Your task to perform on an android device: toggle airplane mode Image 0: 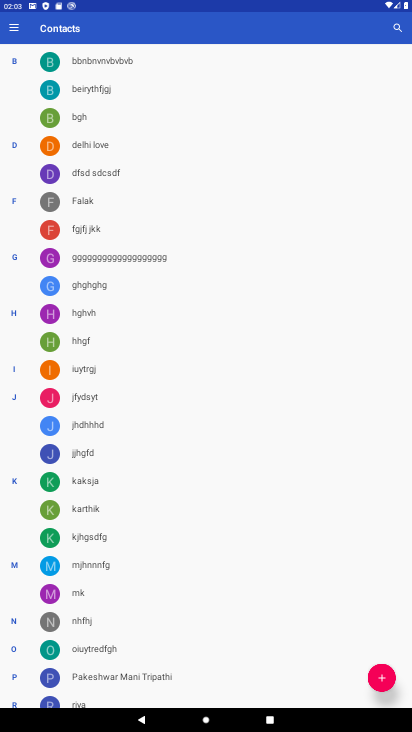
Step 0: press home button
Your task to perform on an android device: toggle airplane mode Image 1: 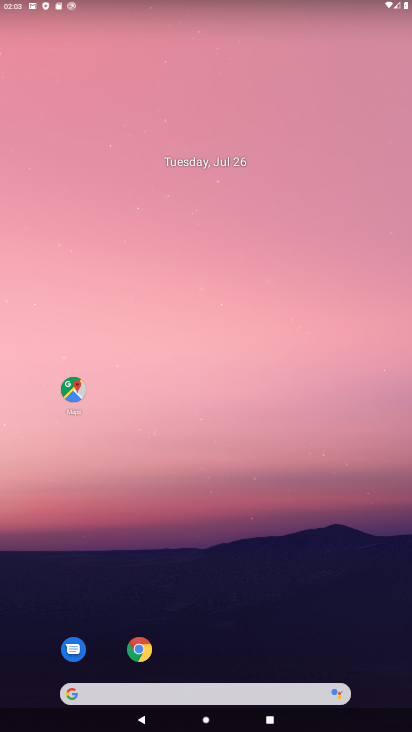
Step 1: drag from (219, 688) to (194, 163)
Your task to perform on an android device: toggle airplane mode Image 2: 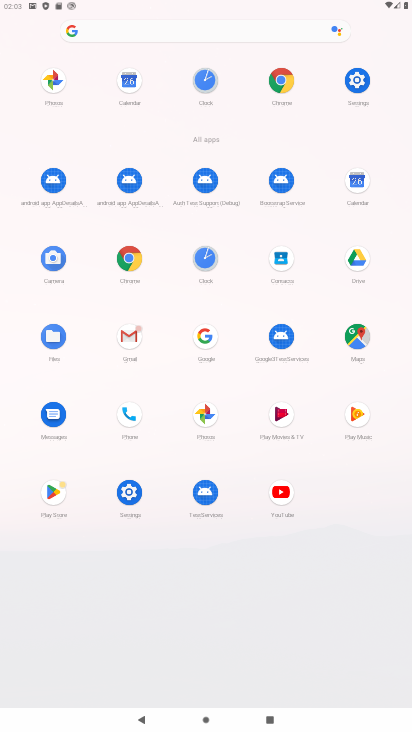
Step 2: click (357, 80)
Your task to perform on an android device: toggle airplane mode Image 3: 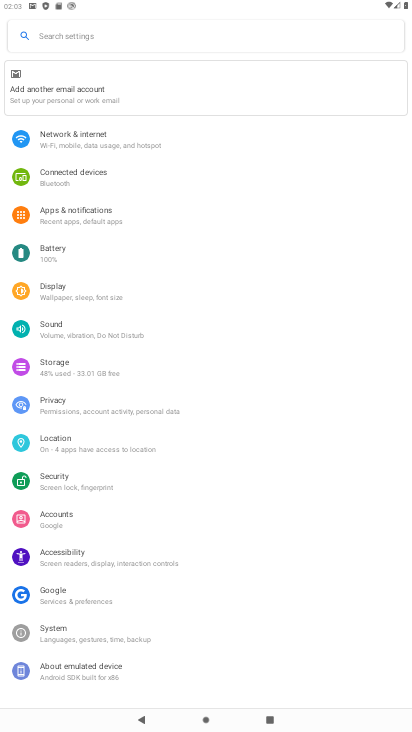
Step 3: click (103, 144)
Your task to perform on an android device: toggle airplane mode Image 4: 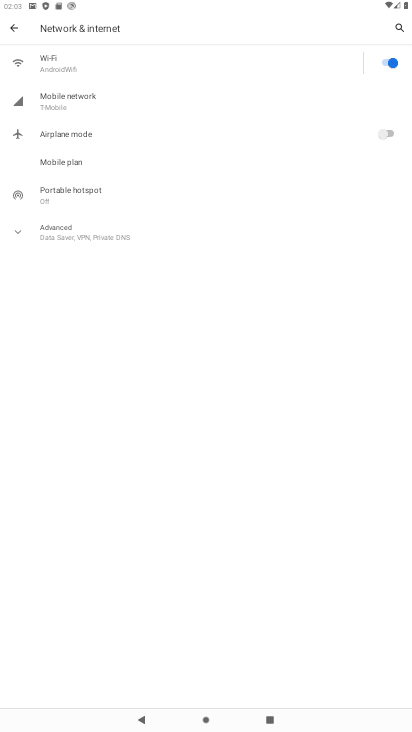
Step 4: click (385, 132)
Your task to perform on an android device: toggle airplane mode Image 5: 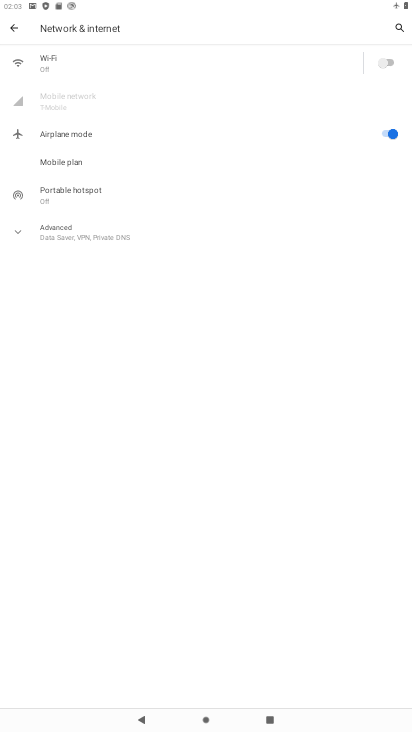
Step 5: task complete